Your task to perform on an android device: Open the camera Image 0: 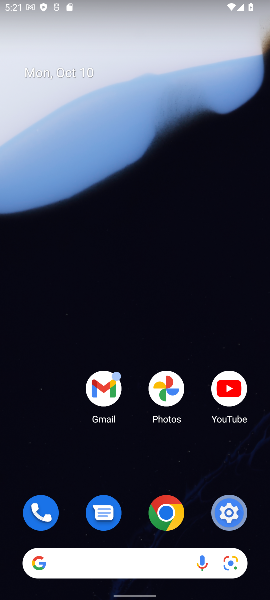
Step 0: drag from (147, 545) to (89, 101)
Your task to perform on an android device: Open the camera Image 1: 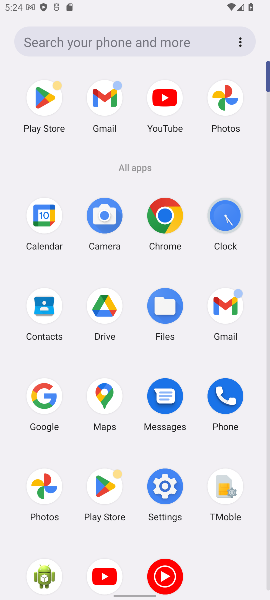
Step 1: click (114, 234)
Your task to perform on an android device: Open the camera Image 2: 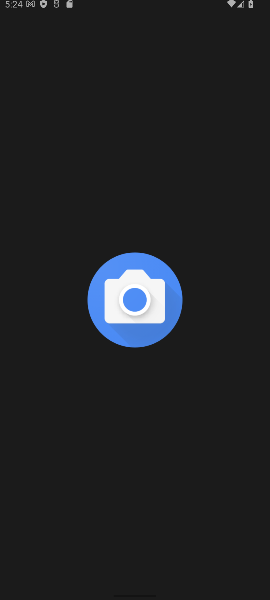
Step 2: task complete